Your task to perform on an android device: open sync settings in chrome Image 0: 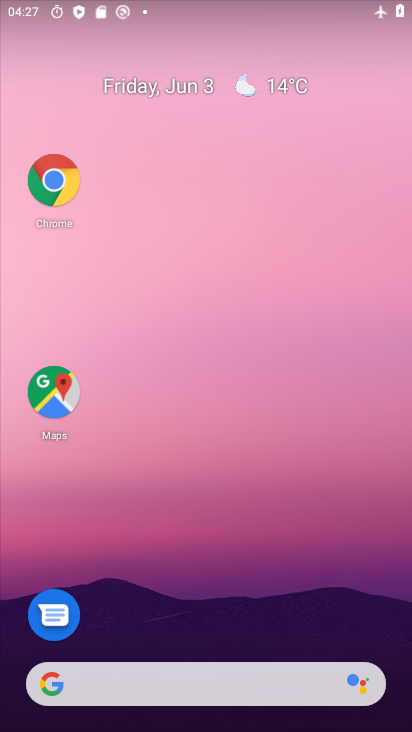
Step 0: click (59, 192)
Your task to perform on an android device: open sync settings in chrome Image 1: 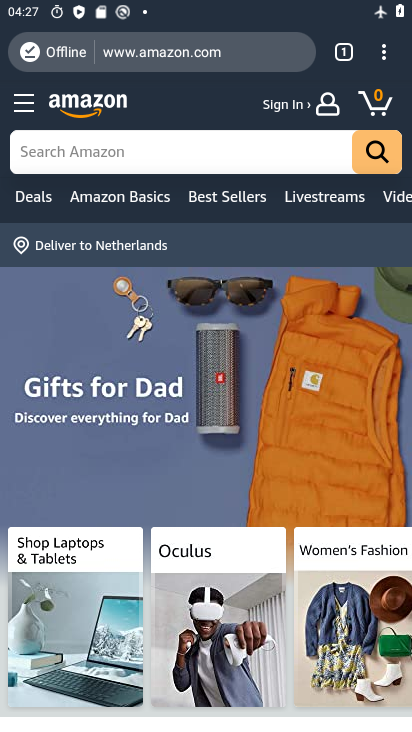
Step 1: click (382, 52)
Your task to perform on an android device: open sync settings in chrome Image 2: 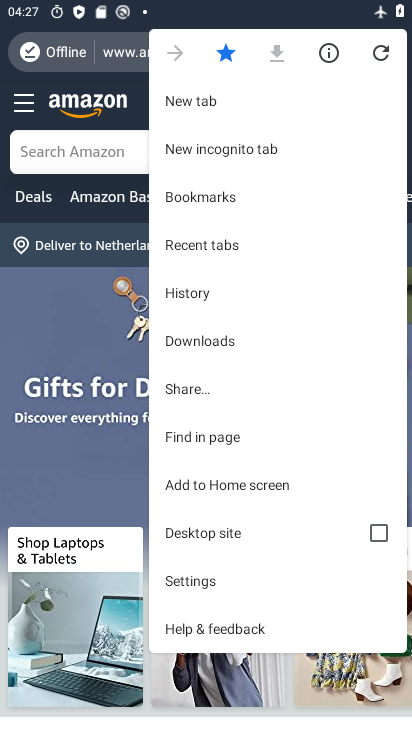
Step 2: click (209, 579)
Your task to perform on an android device: open sync settings in chrome Image 3: 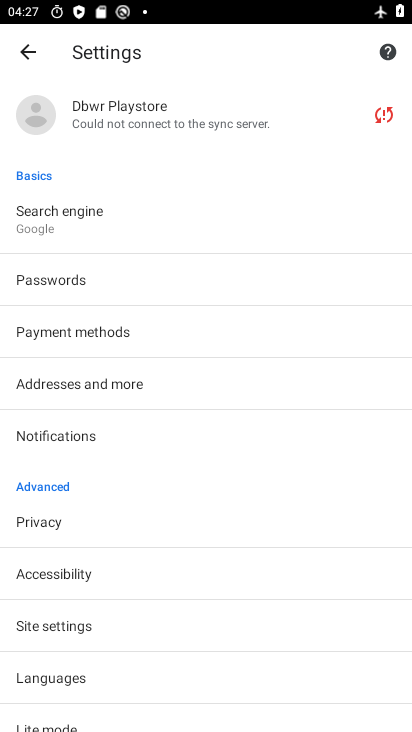
Step 3: click (67, 631)
Your task to perform on an android device: open sync settings in chrome Image 4: 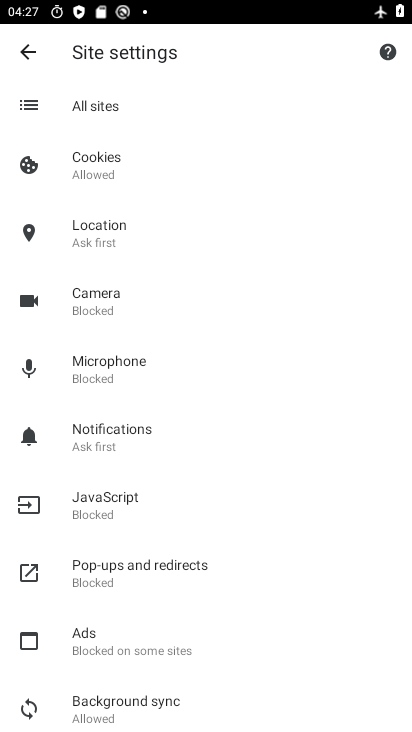
Step 4: click (142, 707)
Your task to perform on an android device: open sync settings in chrome Image 5: 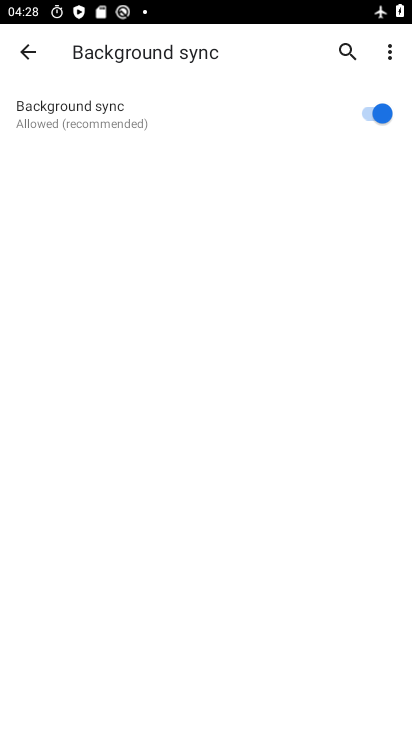
Step 5: task complete